Your task to perform on an android device: Go to display settings Image 0: 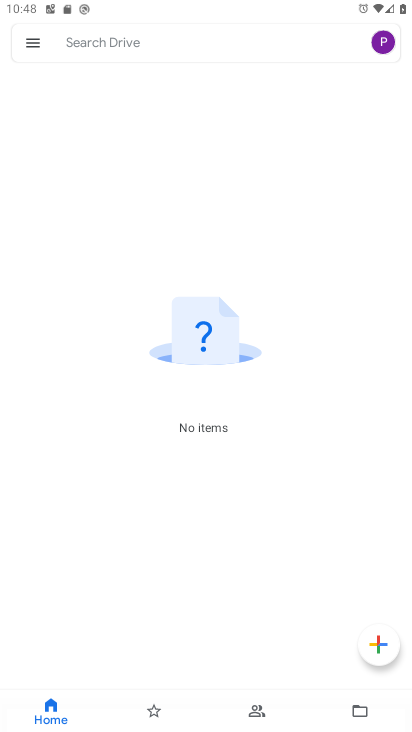
Step 0: press home button
Your task to perform on an android device: Go to display settings Image 1: 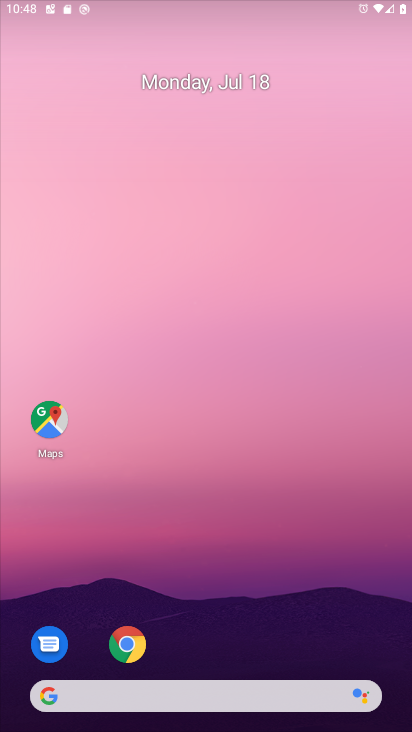
Step 1: drag from (227, 660) to (246, 122)
Your task to perform on an android device: Go to display settings Image 2: 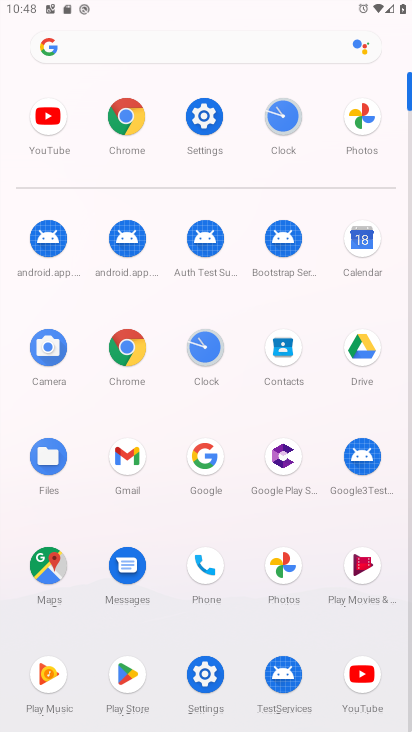
Step 2: click (207, 124)
Your task to perform on an android device: Go to display settings Image 3: 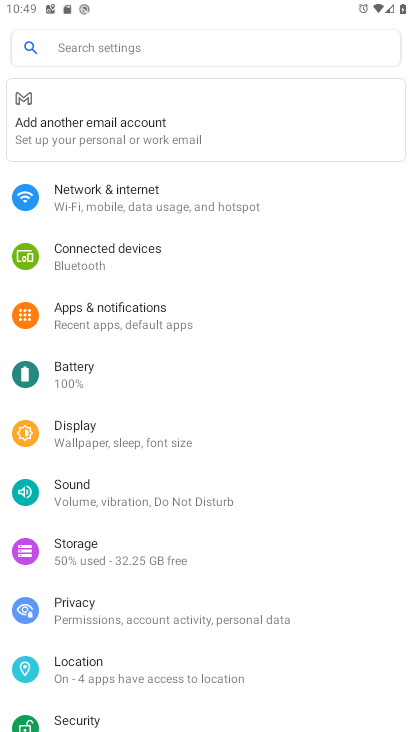
Step 3: click (111, 434)
Your task to perform on an android device: Go to display settings Image 4: 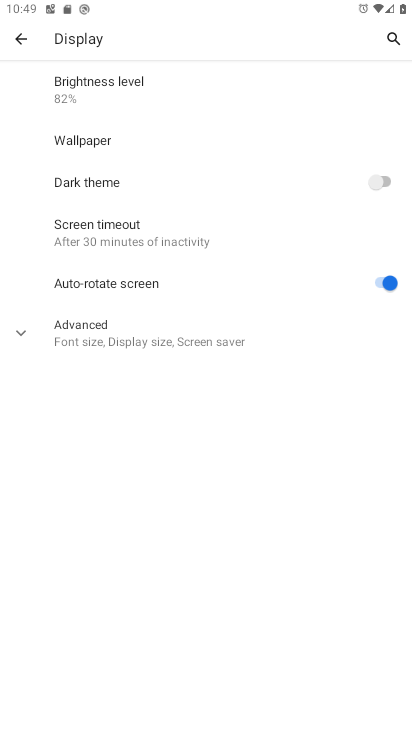
Step 4: task complete